Your task to perform on an android device: make emails show in primary in the gmail app Image 0: 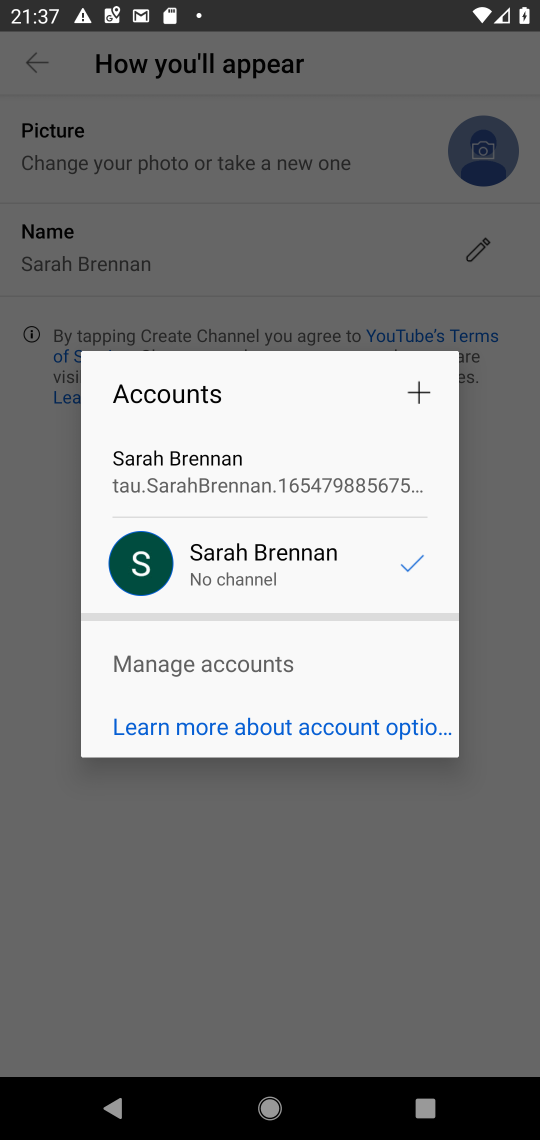
Step 0: press home button
Your task to perform on an android device: make emails show in primary in the gmail app Image 1: 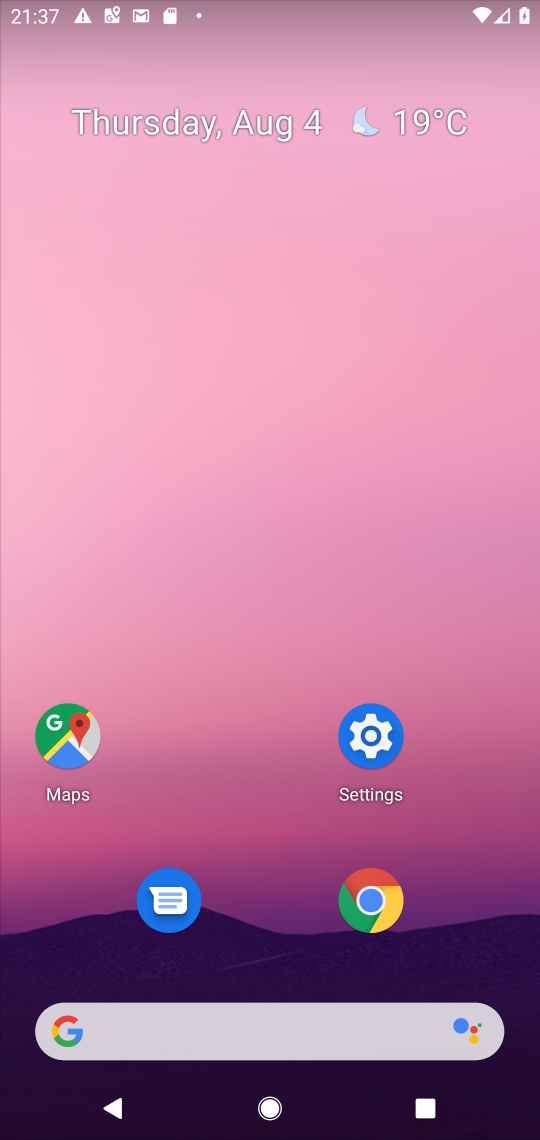
Step 1: drag from (212, 1024) to (471, 130)
Your task to perform on an android device: make emails show in primary in the gmail app Image 2: 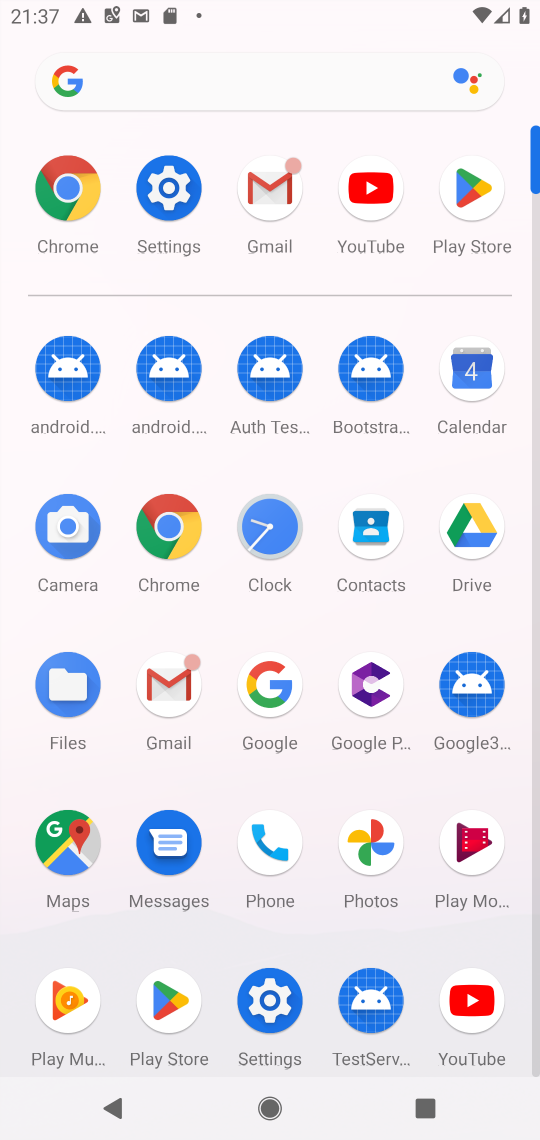
Step 2: click (262, 207)
Your task to perform on an android device: make emails show in primary in the gmail app Image 3: 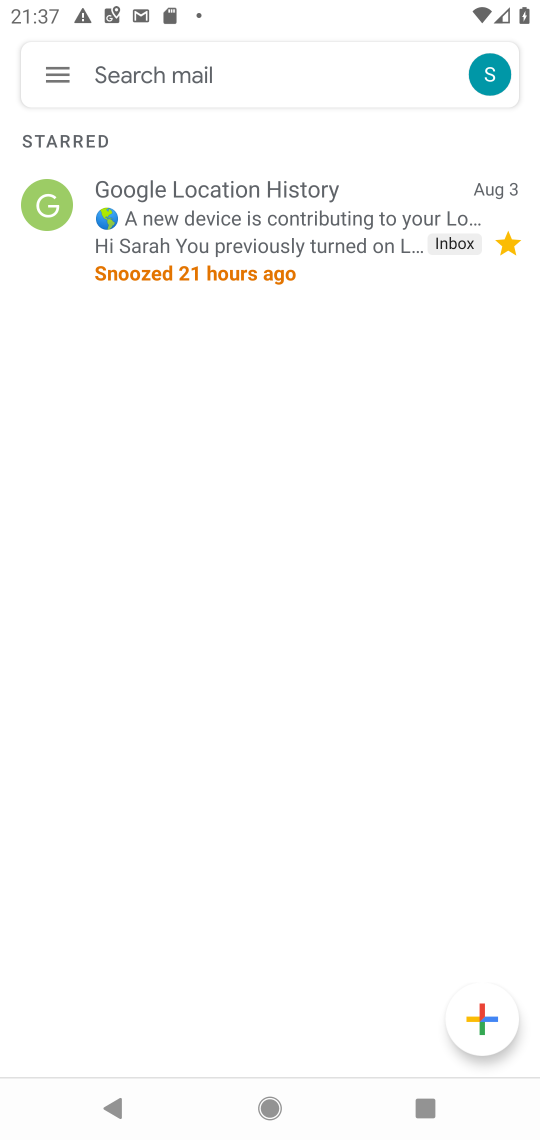
Step 3: click (66, 76)
Your task to perform on an android device: make emails show in primary in the gmail app Image 4: 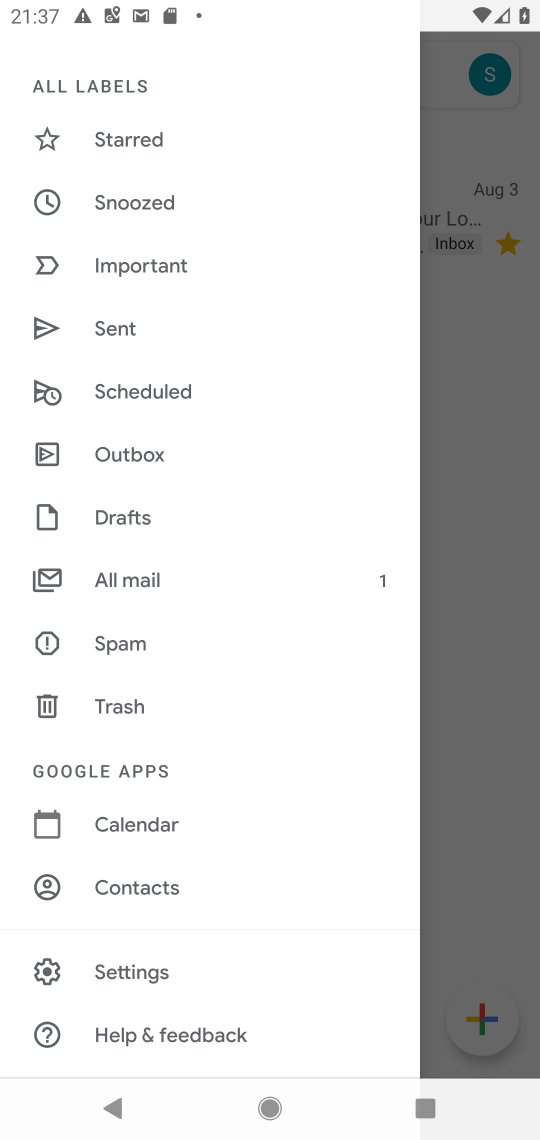
Step 4: click (144, 974)
Your task to perform on an android device: make emails show in primary in the gmail app Image 5: 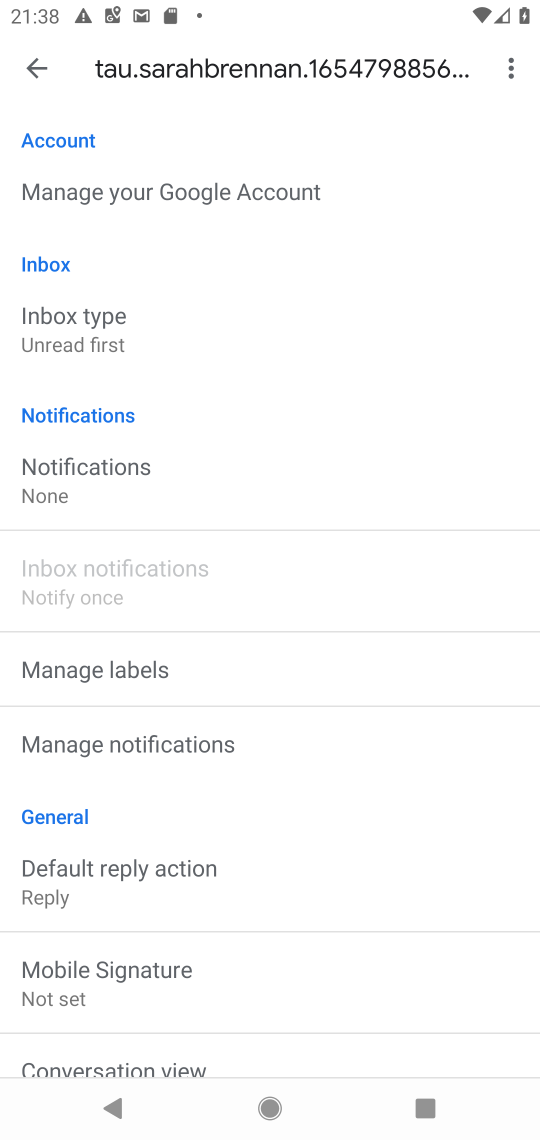
Step 5: task complete